Your task to perform on an android device: set the timer Image 0: 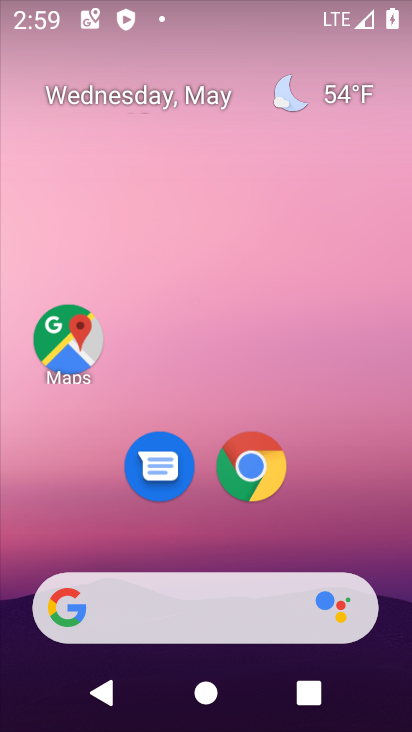
Step 0: drag from (315, 522) to (318, 105)
Your task to perform on an android device: set the timer Image 1: 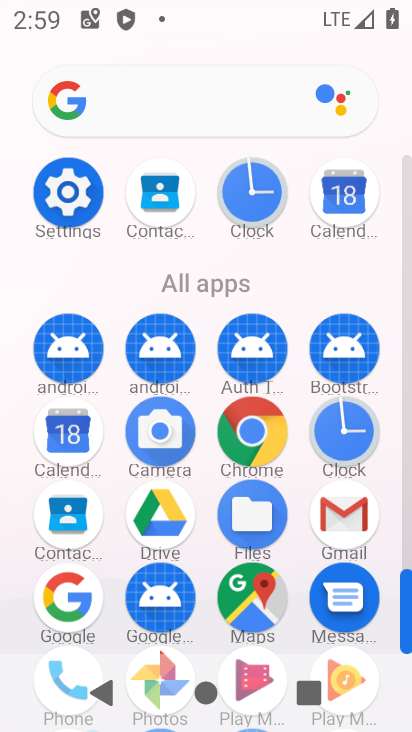
Step 1: click (265, 208)
Your task to perform on an android device: set the timer Image 2: 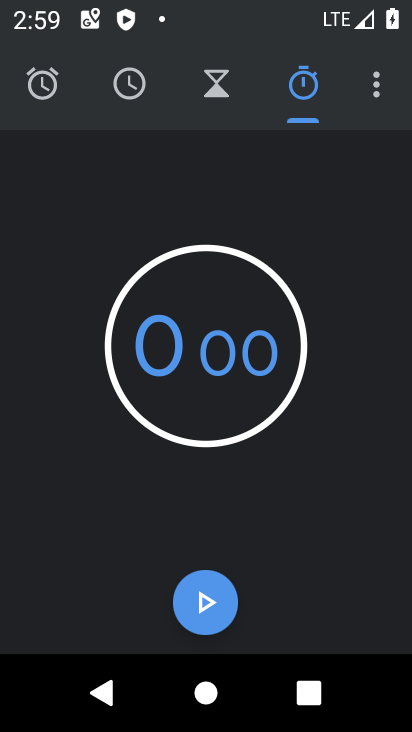
Step 2: click (219, 85)
Your task to perform on an android device: set the timer Image 3: 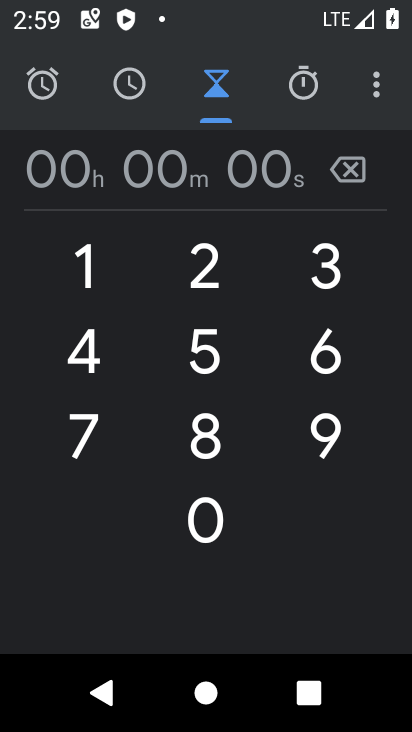
Step 3: type "98798798"
Your task to perform on an android device: set the timer Image 4: 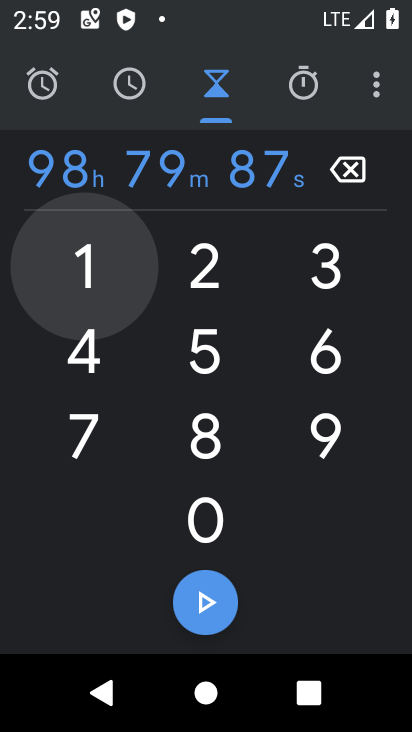
Step 4: click (205, 606)
Your task to perform on an android device: set the timer Image 5: 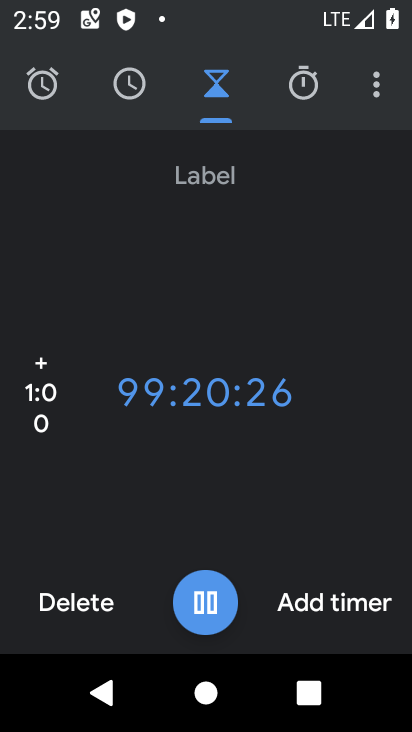
Step 5: task complete